Your task to perform on an android device: Open accessibility settings Image 0: 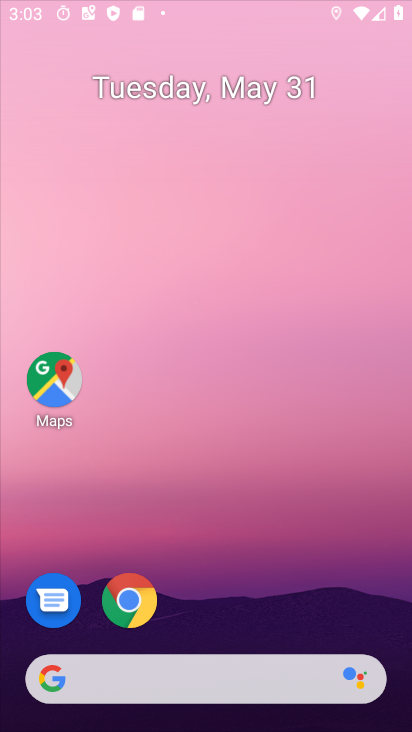
Step 0: press home button
Your task to perform on an android device: Open accessibility settings Image 1: 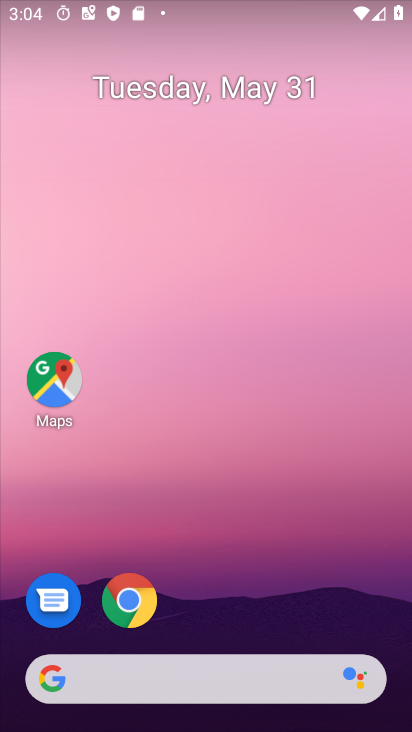
Step 1: drag from (213, 633) to (226, 36)
Your task to perform on an android device: Open accessibility settings Image 2: 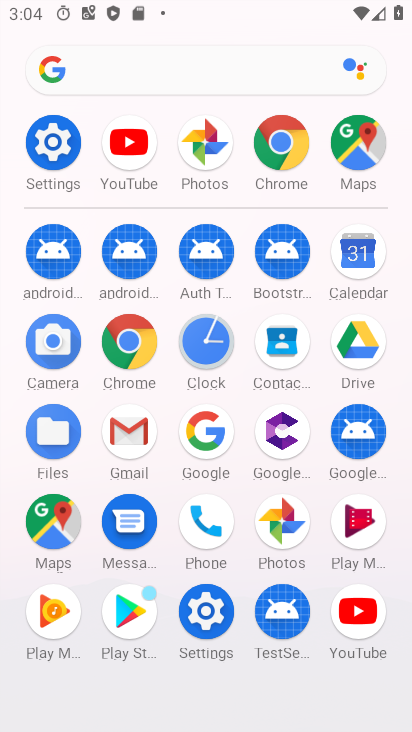
Step 2: click (209, 609)
Your task to perform on an android device: Open accessibility settings Image 3: 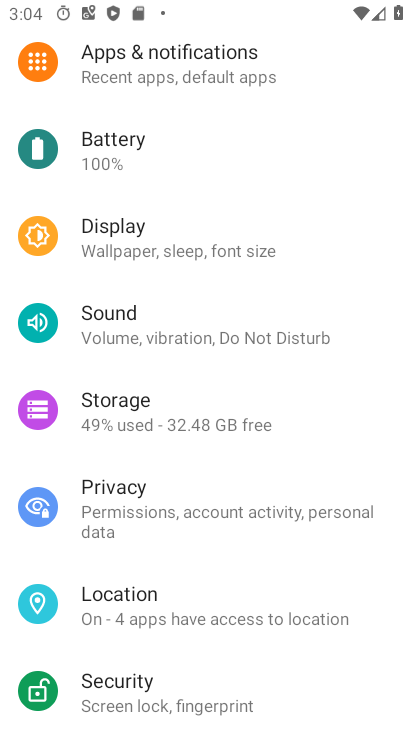
Step 3: drag from (199, 655) to (209, 186)
Your task to perform on an android device: Open accessibility settings Image 4: 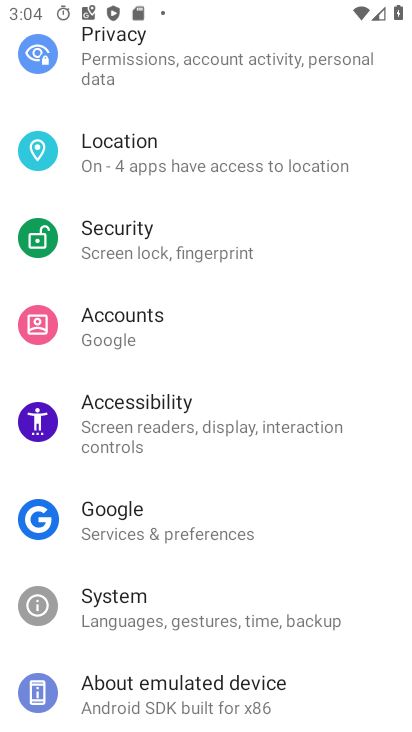
Step 4: click (205, 401)
Your task to perform on an android device: Open accessibility settings Image 5: 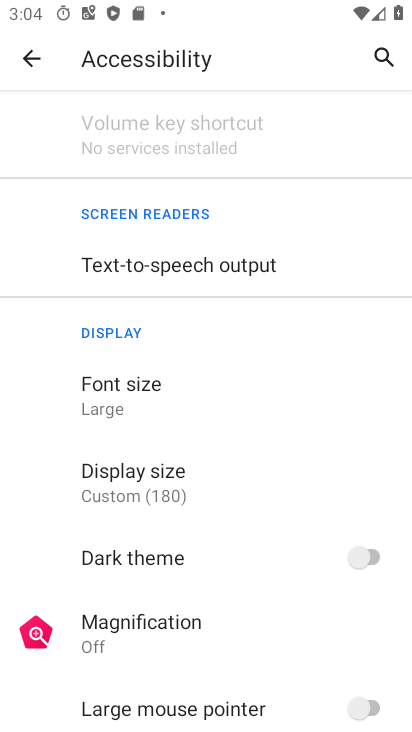
Step 5: task complete